Your task to perform on an android device: Open calendar and show me the second week of next month Image 0: 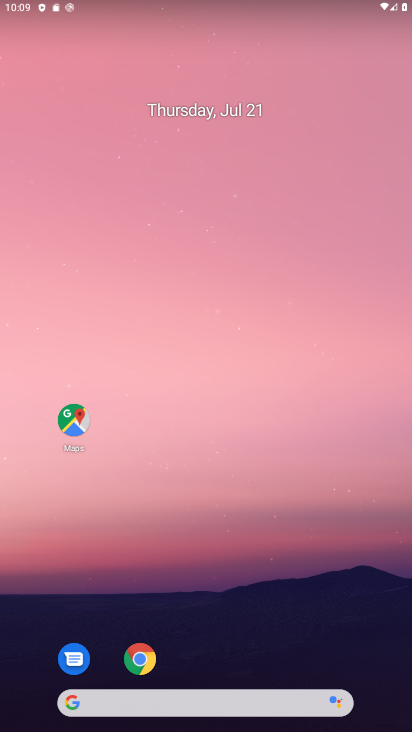
Step 0: drag from (187, 728) to (184, 191)
Your task to perform on an android device: Open calendar and show me the second week of next month Image 1: 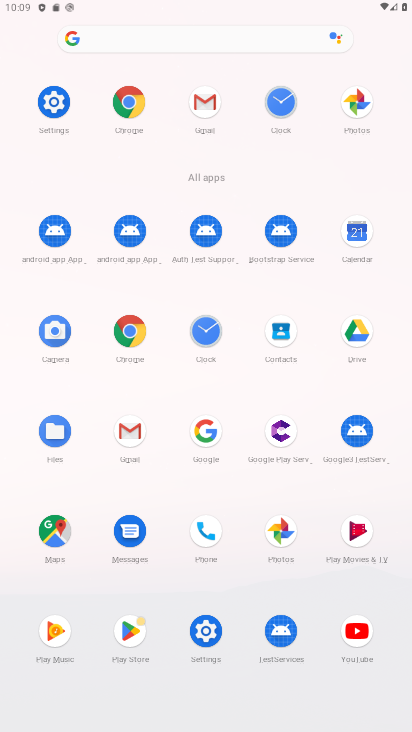
Step 1: click (364, 229)
Your task to perform on an android device: Open calendar and show me the second week of next month Image 2: 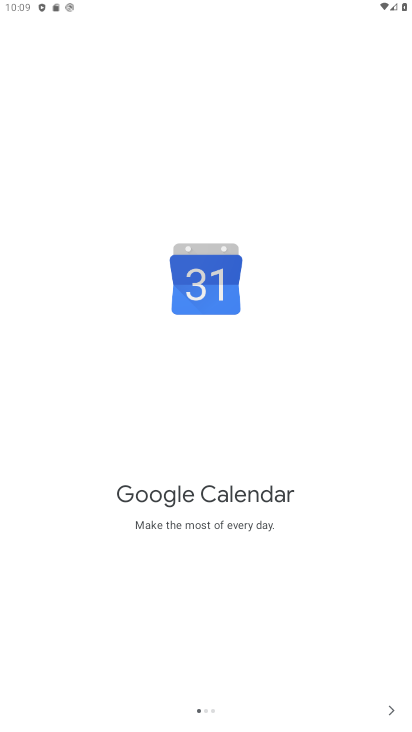
Step 2: click (392, 711)
Your task to perform on an android device: Open calendar and show me the second week of next month Image 3: 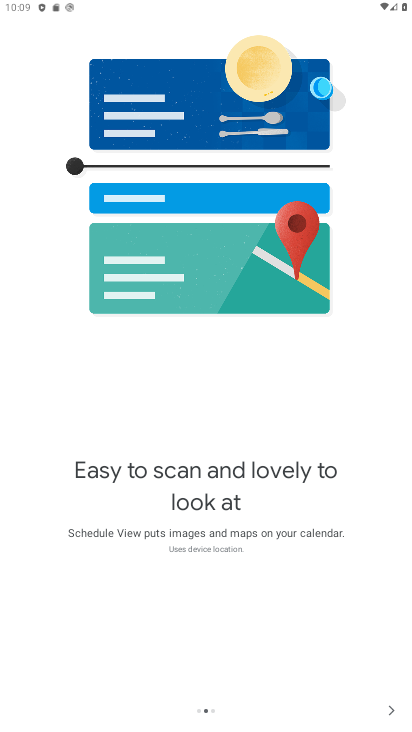
Step 3: click (391, 713)
Your task to perform on an android device: Open calendar and show me the second week of next month Image 4: 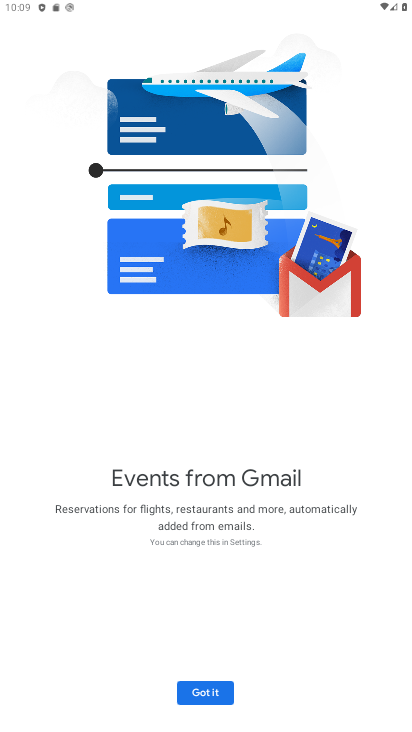
Step 4: click (200, 694)
Your task to perform on an android device: Open calendar and show me the second week of next month Image 5: 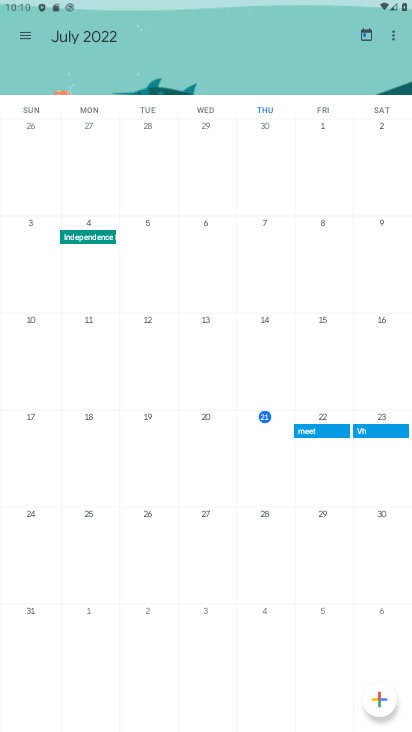
Step 5: drag from (328, 276) to (86, 283)
Your task to perform on an android device: Open calendar and show me the second week of next month Image 6: 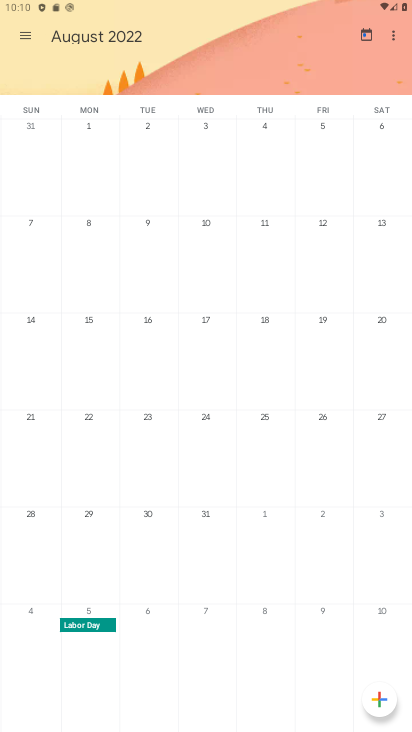
Step 6: click (87, 225)
Your task to perform on an android device: Open calendar and show me the second week of next month Image 7: 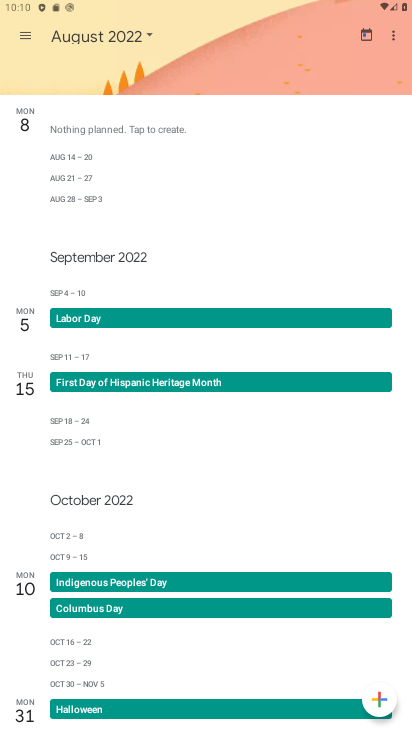
Step 7: task complete